Your task to perform on an android device: Open the stopwatch Image 0: 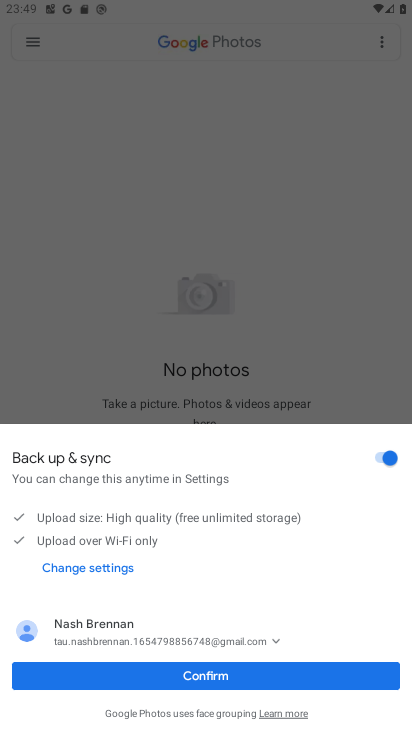
Step 0: press home button
Your task to perform on an android device: Open the stopwatch Image 1: 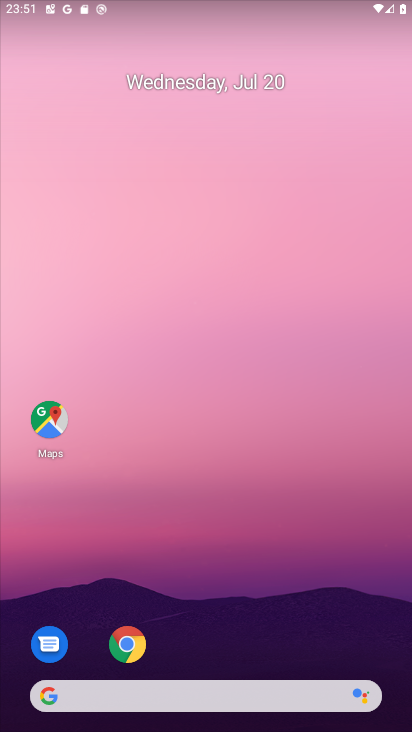
Step 1: drag from (311, 667) to (366, 368)
Your task to perform on an android device: Open the stopwatch Image 2: 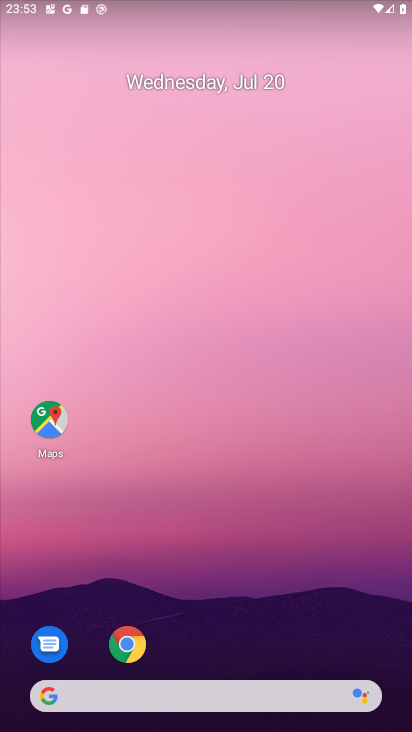
Step 2: drag from (184, 724) to (285, 97)
Your task to perform on an android device: Open the stopwatch Image 3: 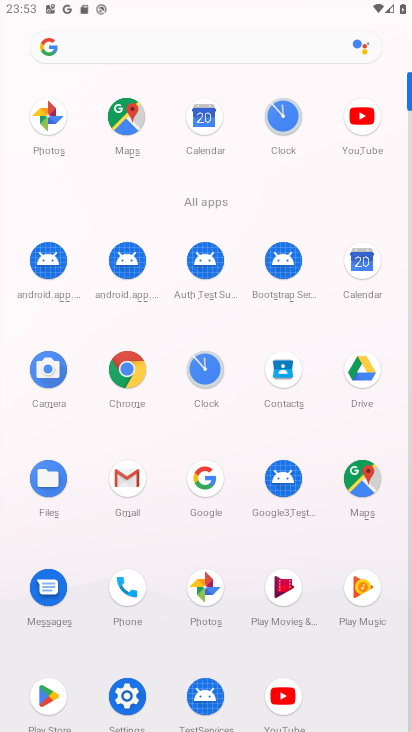
Step 3: click (200, 348)
Your task to perform on an android device: Open the stopwatch Image 4: 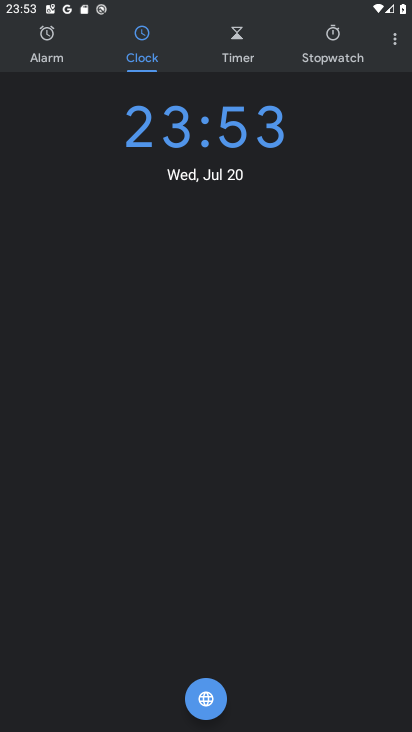
Step 4: click (339, 32)
Your task to perform on an android device: Open the stopwatch Image 5: 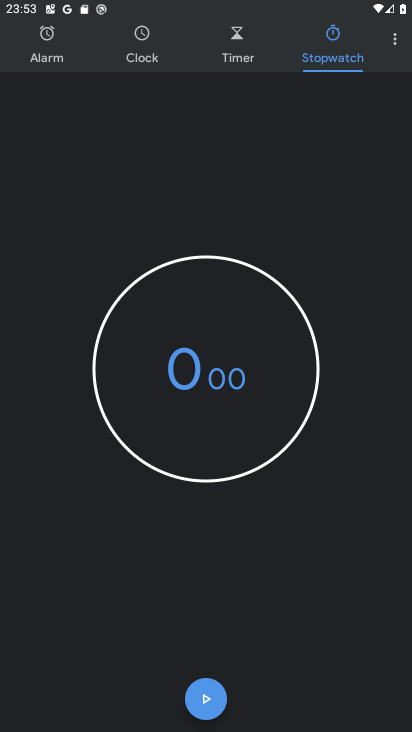
Step 5: task complete